Your task to perform on an android device: toggle notification dots Image 0: 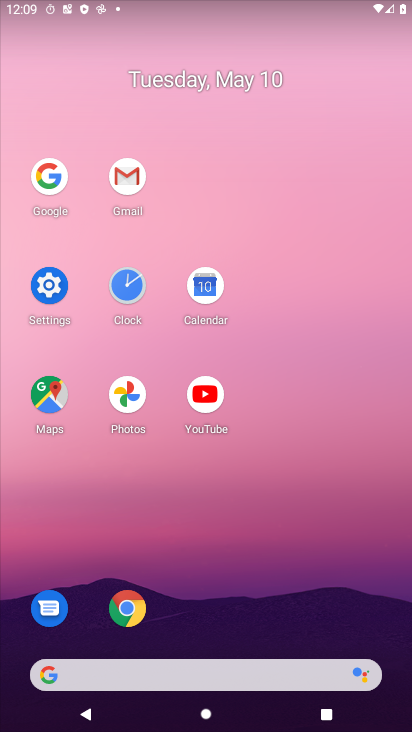
Step 0: click (213, 298)
Your task to perform on an android device: toggle notification dots Image 1: 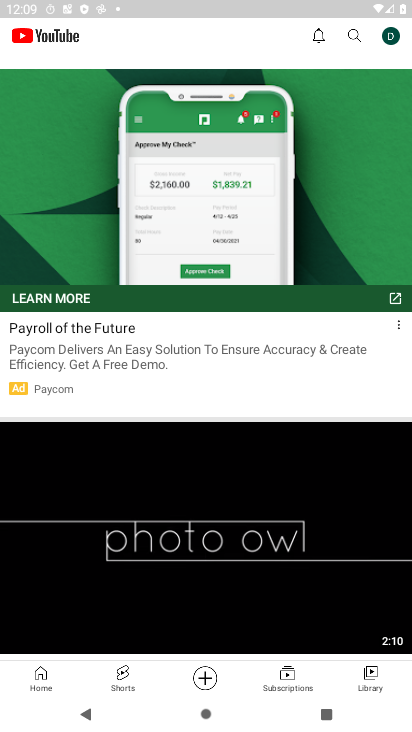
Step 1: press back button
Your task to perform on an android device: toggle notification dots Image 2: 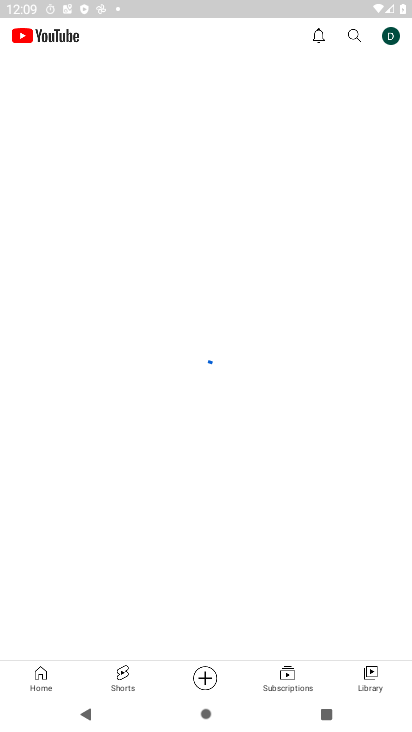
Step 2: press back button
Your task to perform on an android device: toggle notification dots Image 3: 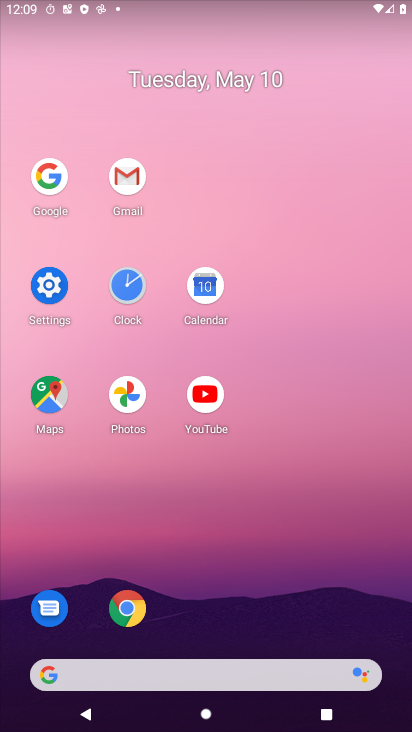
Step 3: click (58, 290)
Your task to perform on an android device: toggle notification dots Image 4: 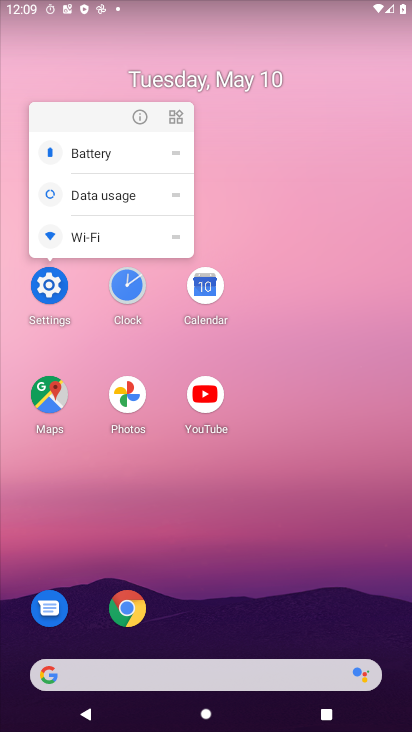
Step 4: click (47, 289)
Your task to perform on an android device: toggle notification dots Image 5: 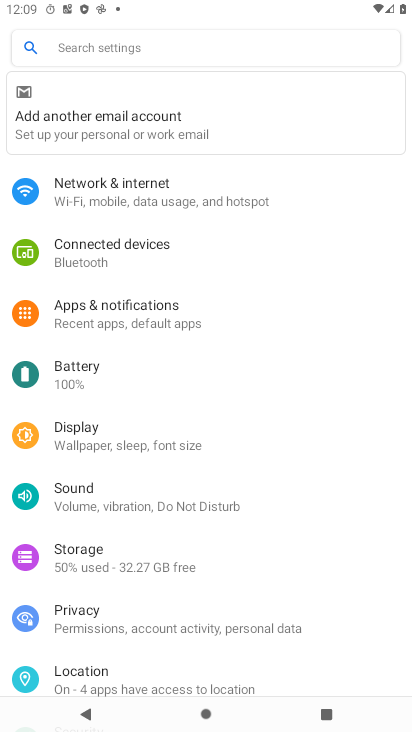
Step 5: click (153, 308)
Your task to perform on an android device: toggle notification dots Image 6: 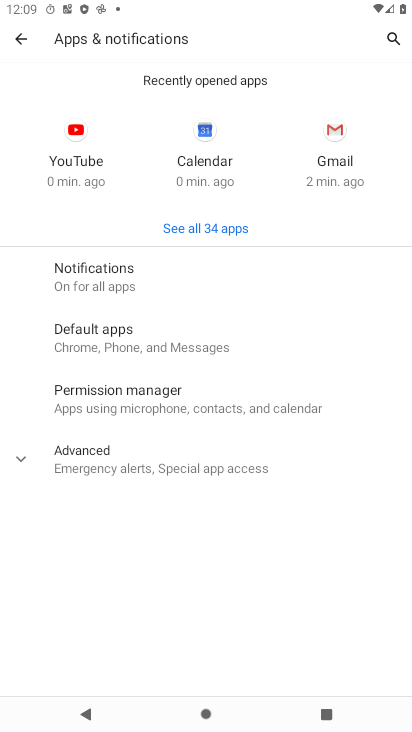
Step 6: click (146, 266)
Your task to perform on an android device: toggle notification dots Image 7: 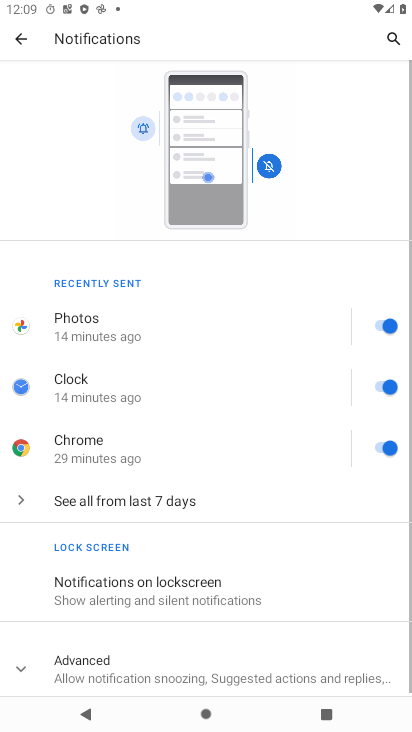
Step 7: drag from (234, 615) to (281, 230)
Your task to perform on an android device: toggle notification dots Image 8: 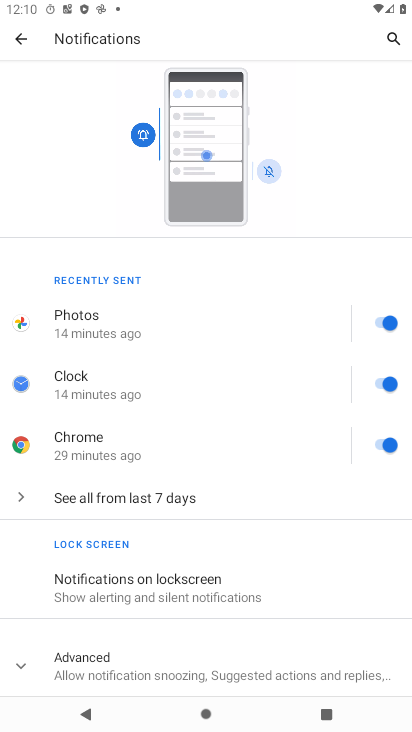
Step 8: click (171, 655)
Your task to perform on an android device: toggle notification dots Image 9: 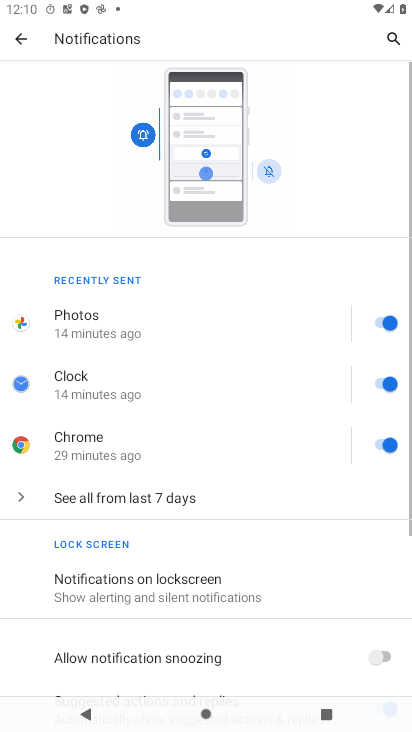
Step 9: drag from (189, 617) to (212, 203)
Your task to perform on an android device: toggle notification dots Image 10: 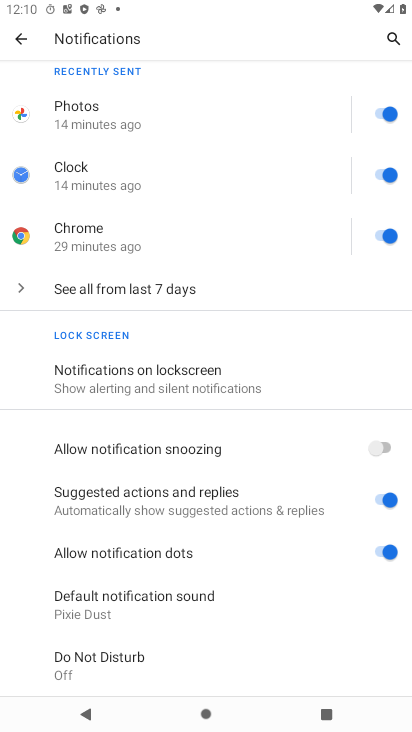
Step 10: click (388, 555)
Your task to perform on an android device: toggle notification dots Image 11: 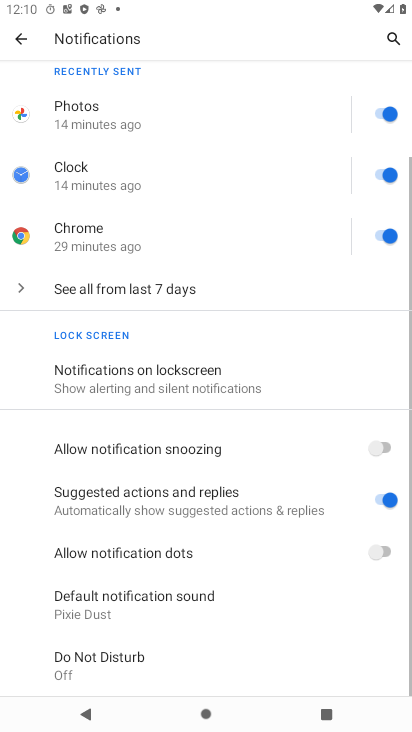
Step 11: task complete